Your task to perform on an android device: add a contact Image 0: 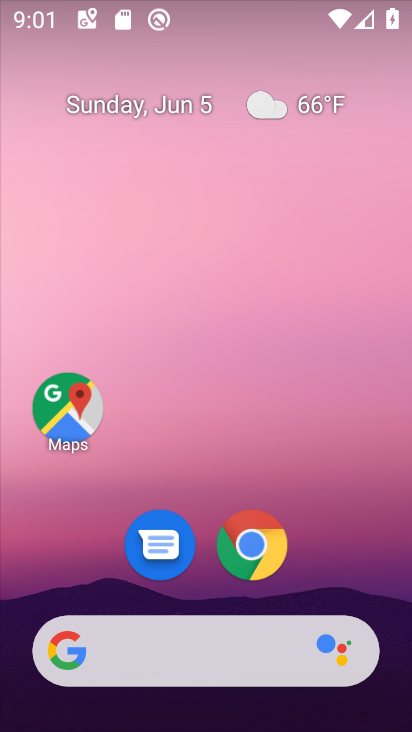
Step 0: drag from (376, 587) to (359, 177)
Your task to perform on an android device: add a contact Image 1: 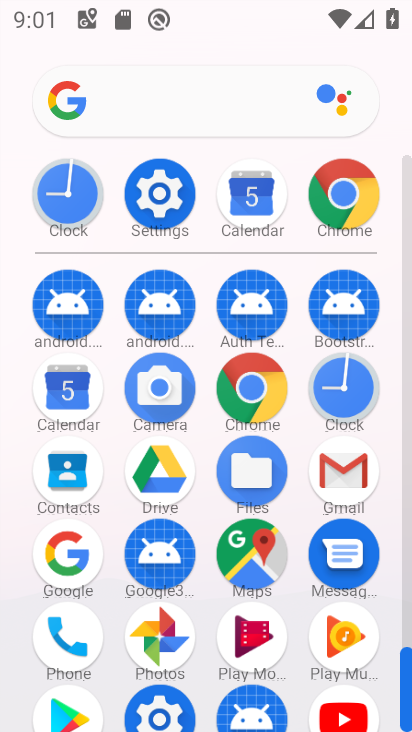
Step 1: click (74, 473)
Your task to perform on an android device: add a contact Image 2: 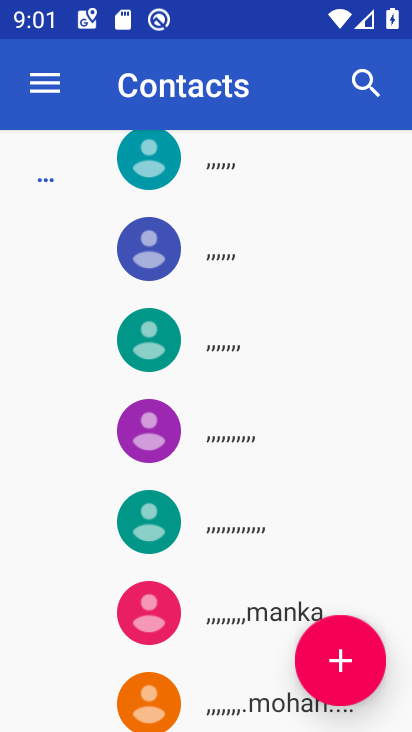
Step 2: click (321, 663)
Your task to perform on an android device: add a contact Image 3: 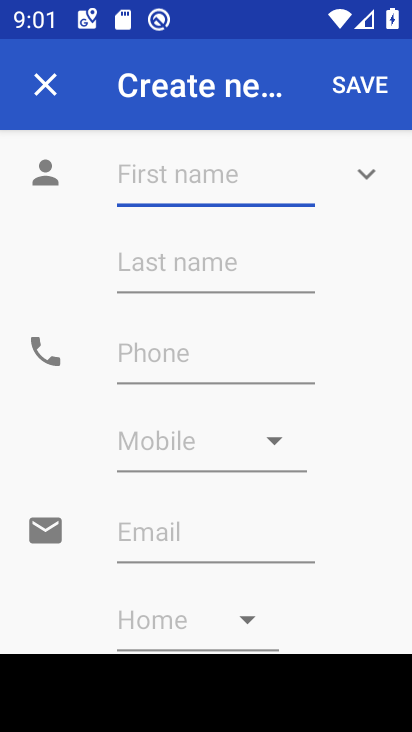
Step 3: click (221, 190)
Your task to perform on an android device: add a contact Image 4: 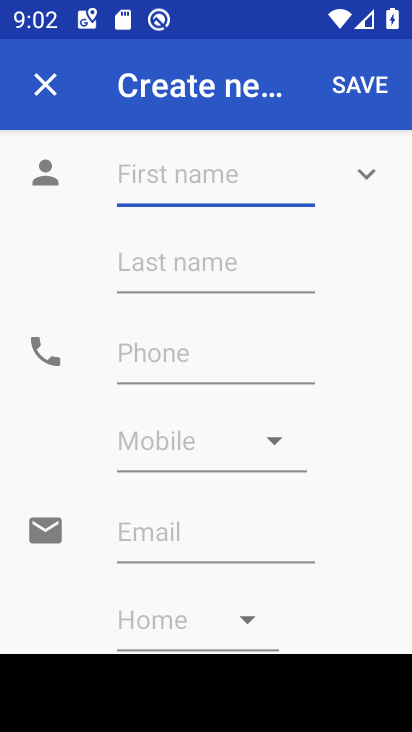
Step 4: type "me to "
Your task to perform on an android device: add a contact Image 5: 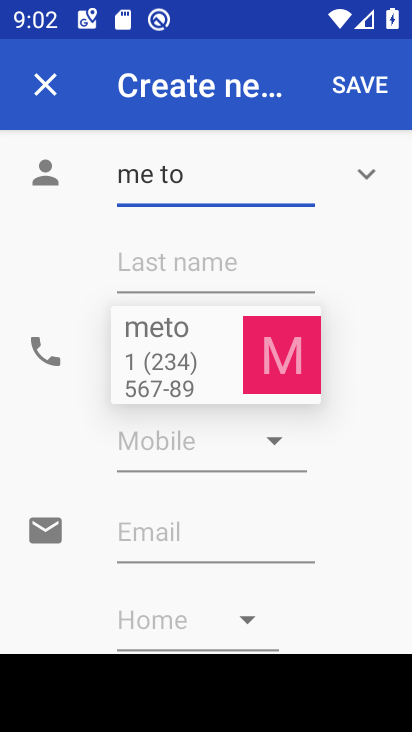
Step 5: click (376, 328)
Your task to perform on an android device: add a contact Image 6: 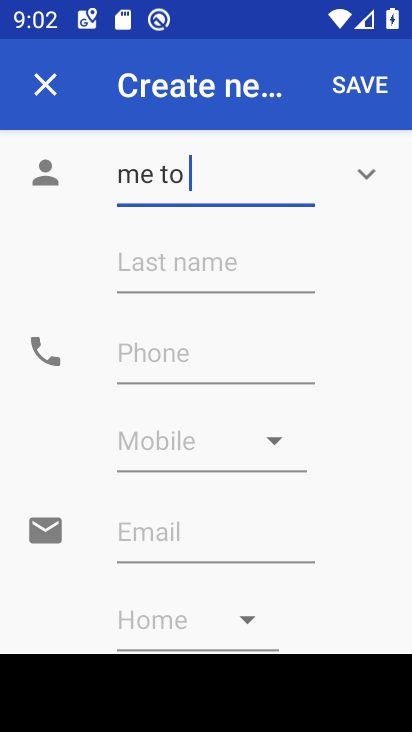
Step 6: click (207, 361)
Your task to perform on an android device: add a contact Image 7: 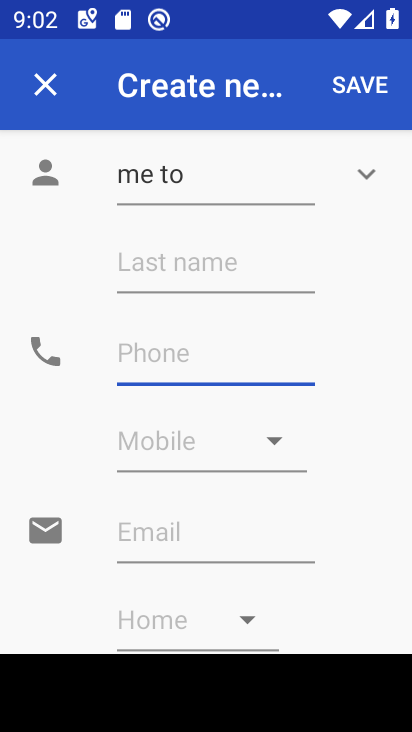
Step 7: type "1234567890"
Your task to perform on an android device: add a contact Image 8: 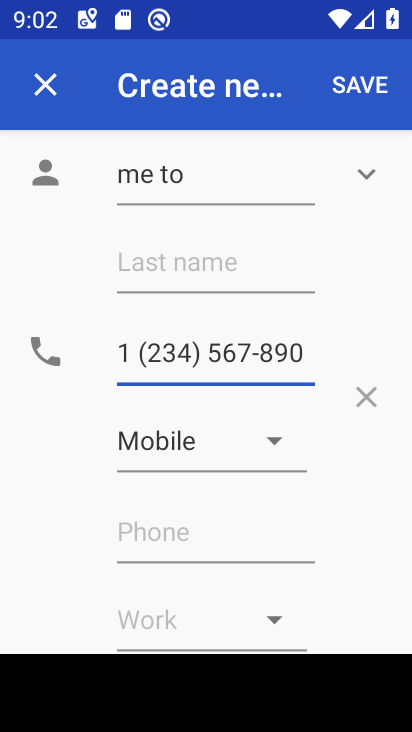
Step 8: click (379, 81)
Your task to perform on an android device: add a contact Image 9: 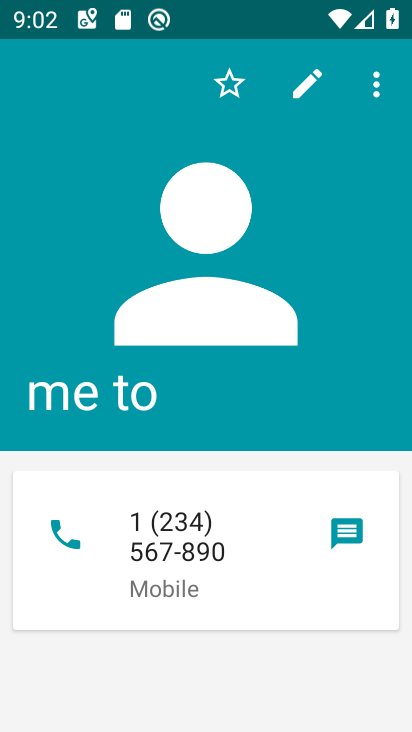
Step 9: task complete